Your task to perform on an android device: change your default location settings in chrome Image 0: 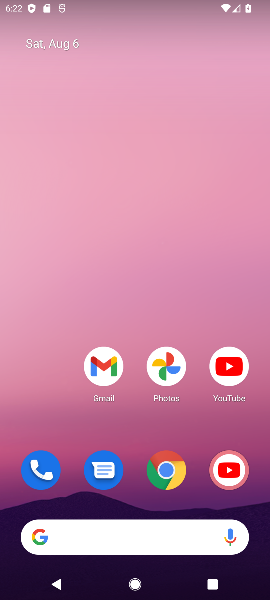
Step 0: drag from (127, 479) to (148, 60)
Your task to perform on an android device: change your default location settings in chrome Image 1: 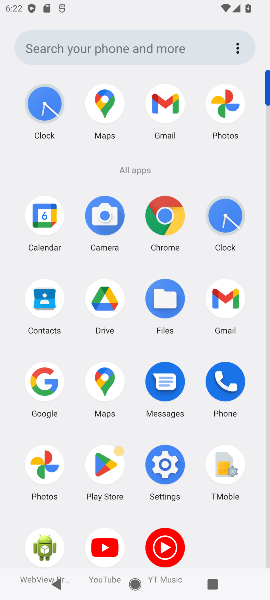
Step 1: click (163, 453)
Your task to perform on an android device: change your default location settings in chrome Image 2: 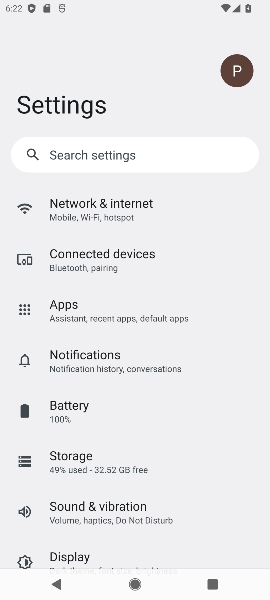
Step 2: drag from (171, 503) to (186, 195)
Your task to perform on an android device: change your default location settings in chrome Image 3: 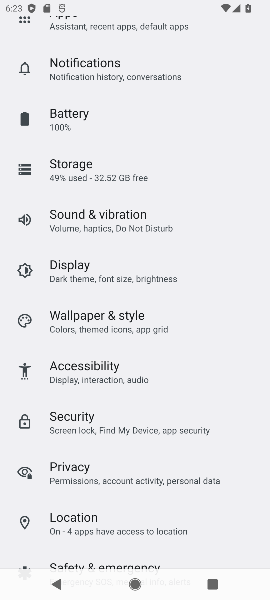
Step 3: click (96, 522)
Your task to perform on an android device: change your default location settings in chrome Image 4: 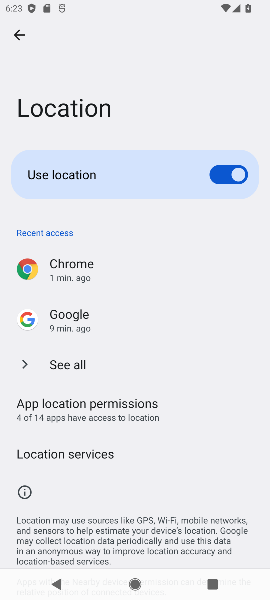
Step 4: task complete